Your task to perform on an android device: toggle translation in the chrome app Image 0: 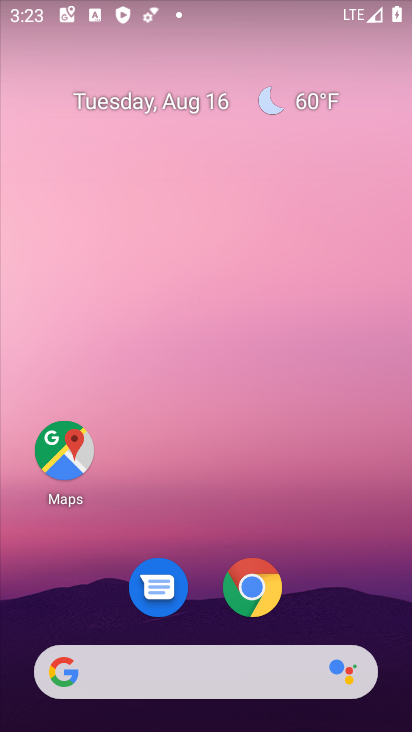
Step 0: click (264, 591)
Your task to perform on an android device: toggle translation in the chrome app Image 1: 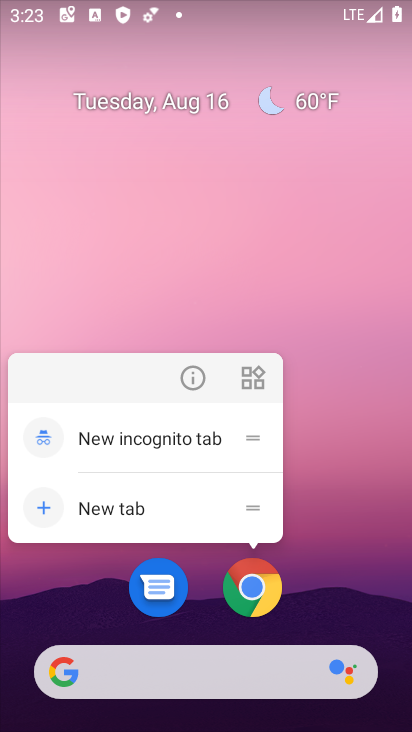
Step 1: click (260, 589)
Your task to perform on an android device: toggle translation in the chrome app Image 2: 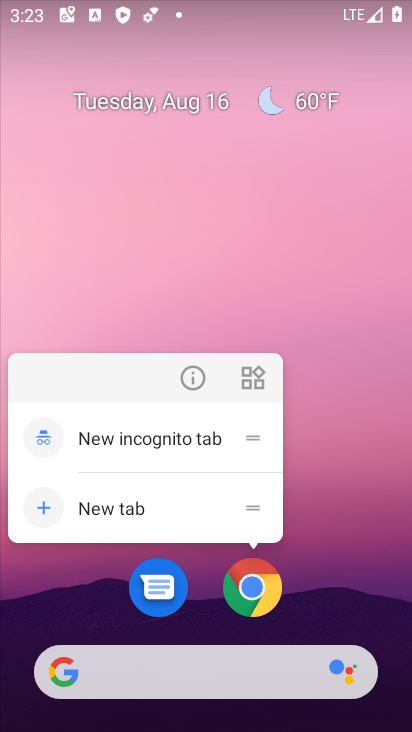
Step 2: click (249, 585)
Your task to perform on an android device: toggle translation in the chrome app Image 3: 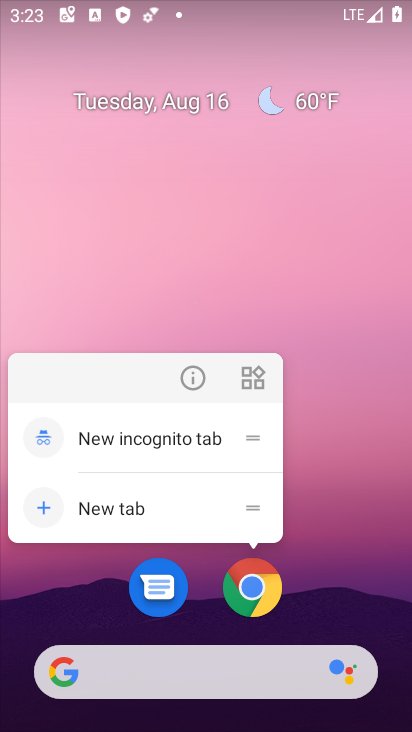
Step 3: click (251, 585)
Your task to perform on an android device: toggle translation in the chrome app Image 4: 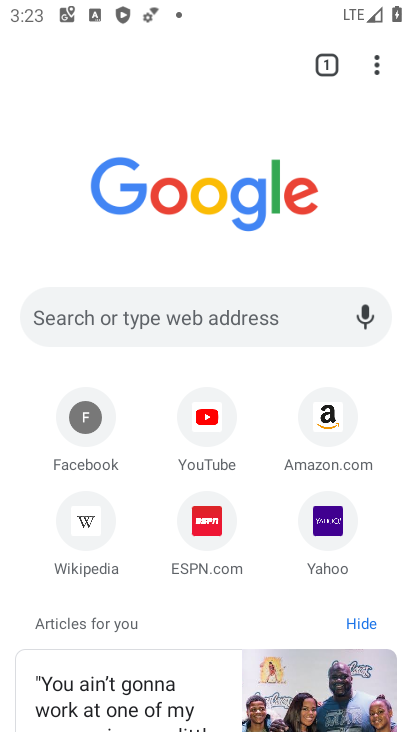
Step 4: drag from (373, 59) to (165, 553)
Your task to perform on an android device: toggle translation in the chrome app Image 5: 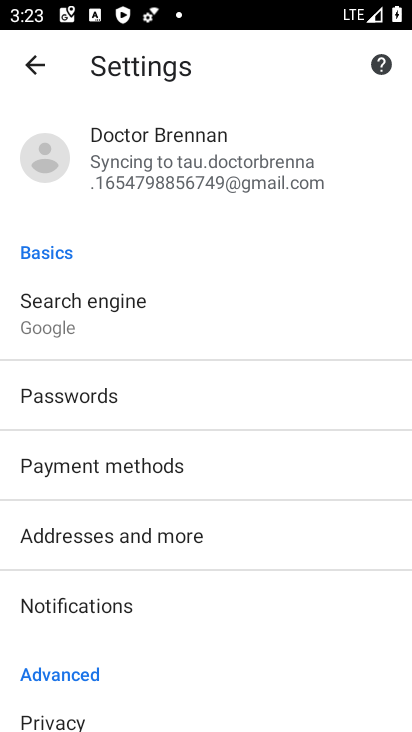
Step 5: drag from (129, 675) to (120, 211)
Your task to perform on an android device: toggle translation in the chrome app Image 6: 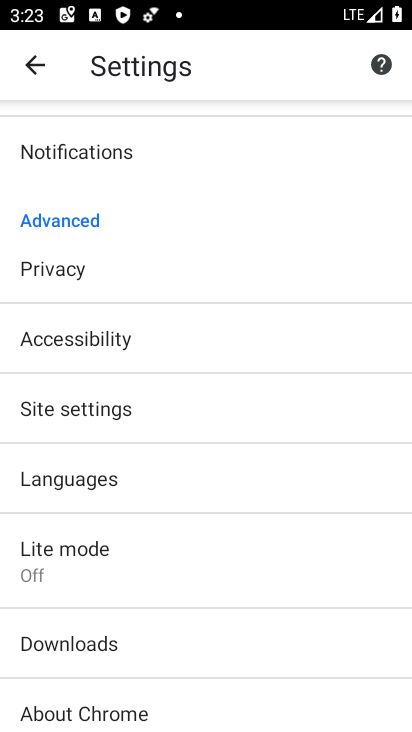
Step 6: click (107, 495)
Your task to perform on an android device: toggle translation in the chrome app Image 7: 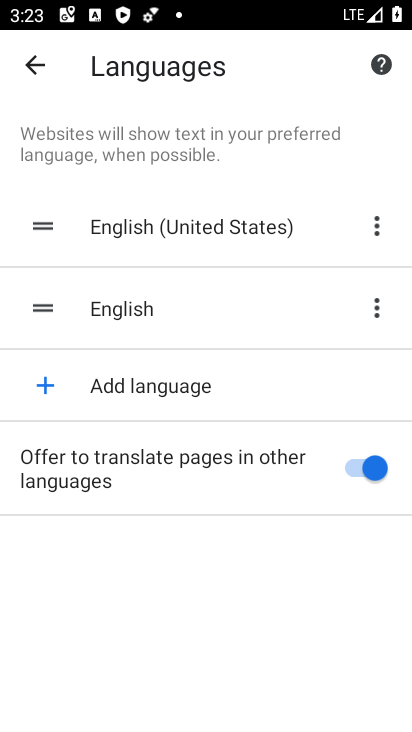
Step 7: task complete